Your task to perform on an android device: Open Yahoo.com Image 0: 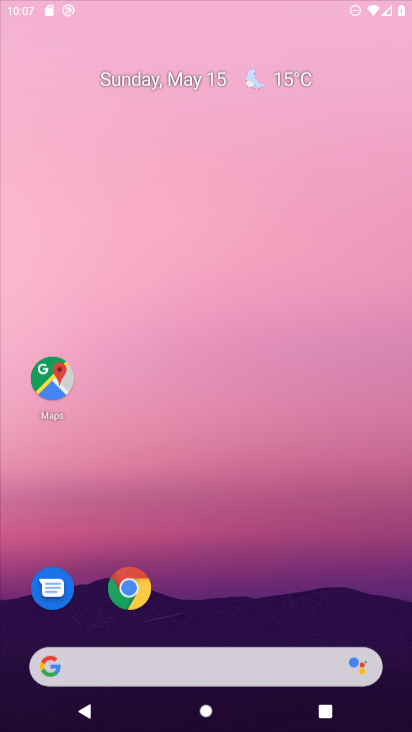
Step 0: click (225, 147)
Your task to perform on an android device: Open Yahoo.com Image 1: 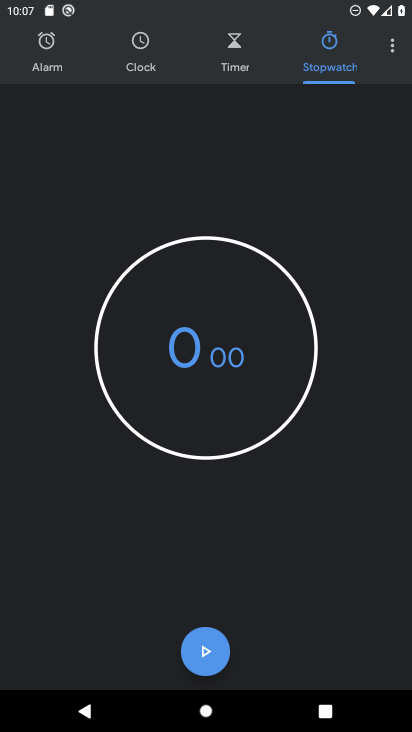
Step 1: drag from (232, 633) to (267, 197)
Your task to perform on an android device: Open Yahoo.com Image 2: 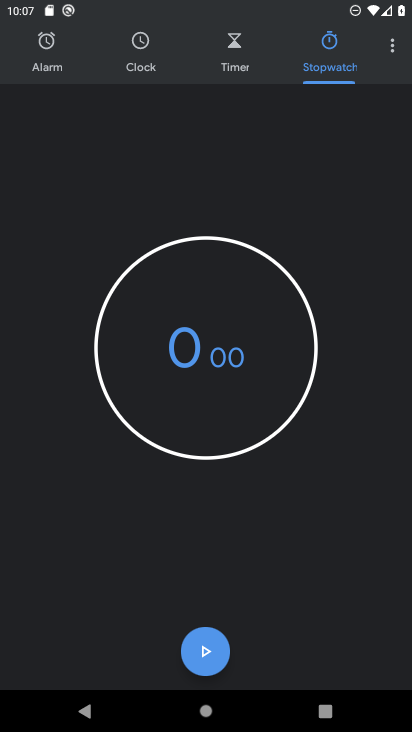
Step 2: press home button
Your task to perform on an android device: Open Yahoo.com Image 3: 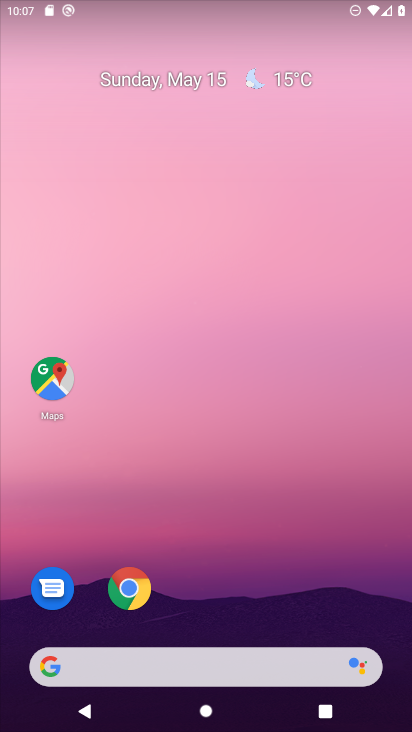
Step 3: click (128, 592)
Your task to perform on an android device: Open Yahoo.com Image 4: 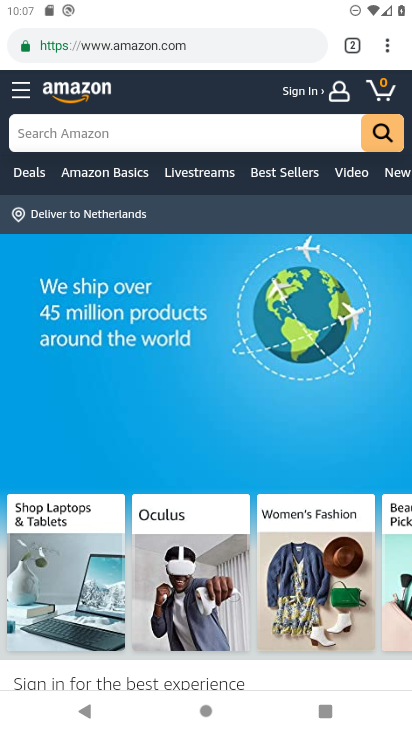
Step 4: click (182, 40)
Your task to perform on an android device: Open Yahoo.com Image 5: 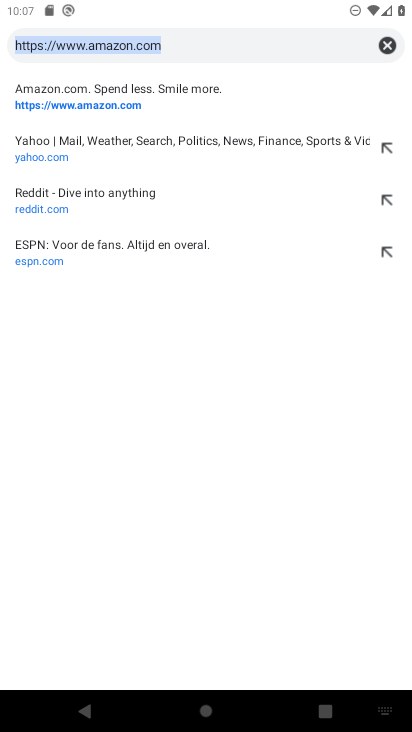
Step 5: type "Yahoo.com"
Your task to perform on an android device: Open Yahoo.com Image 6: 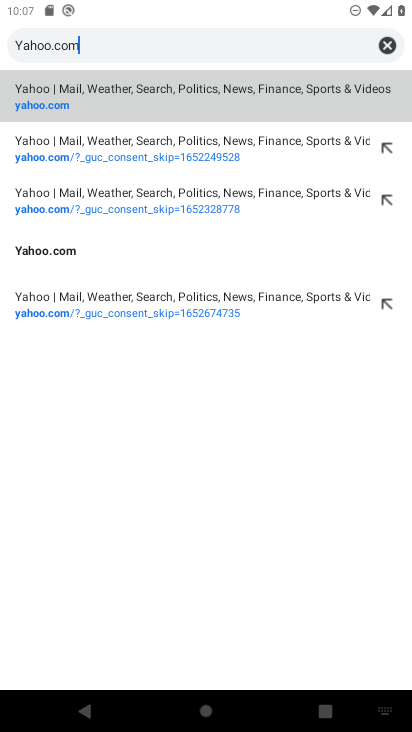
Step 6: click (55, 259)
Your task to perform on an android device: Open Yahoo.com Image 7: 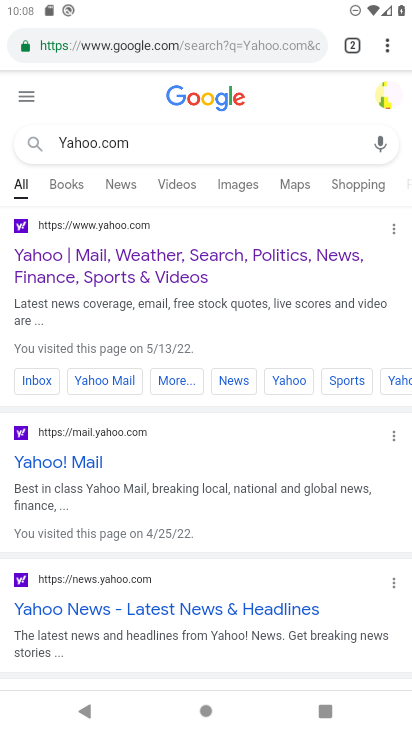
Step 7: task complete